Your task to perform on an android device: find snoozed emails in the gmail app Image 0: 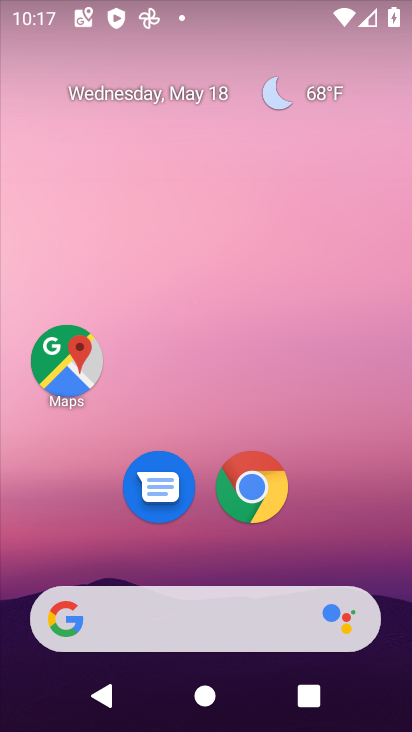
Step 0: drag from (368, 546) to (327, 126)
Your task to perform on an android device: find snoozed emails in the gmail app Image 1: 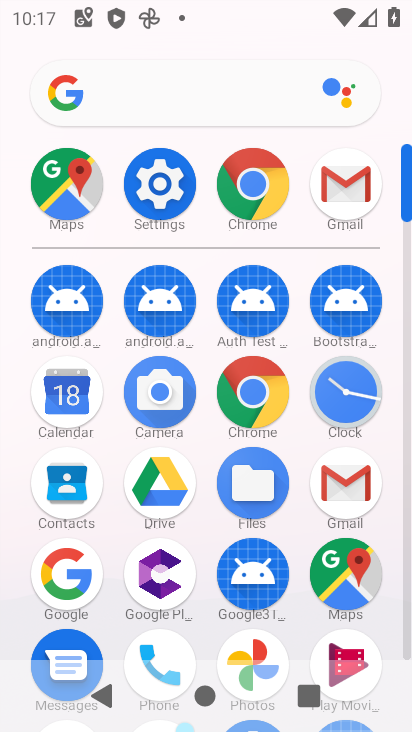
Step 1: press home button
Your task to perform on an android device: find snoozed emails in the gmail app Image 2: 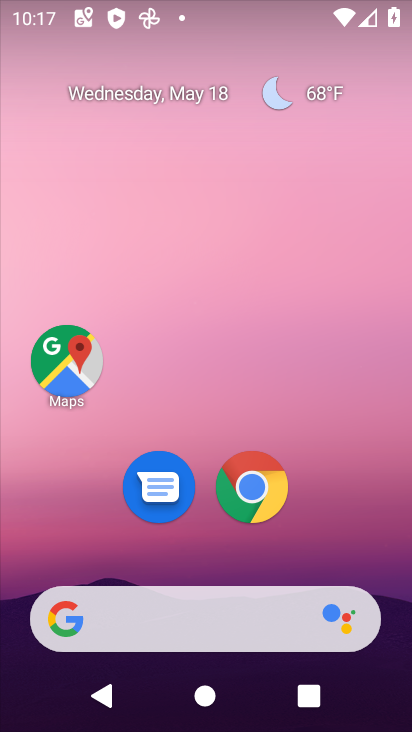
Step 2: drag from (355, 512) to (362, 199)
Your task to perform on an android device: find snoozed emails in the gmail app Image 3: 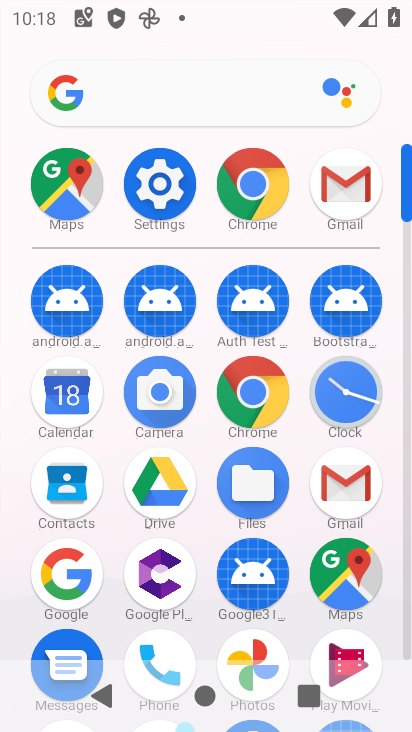
Step 3: click (351, 492)
Your task to perform on an android device: find snoozed emails in the gmail app Image 4: 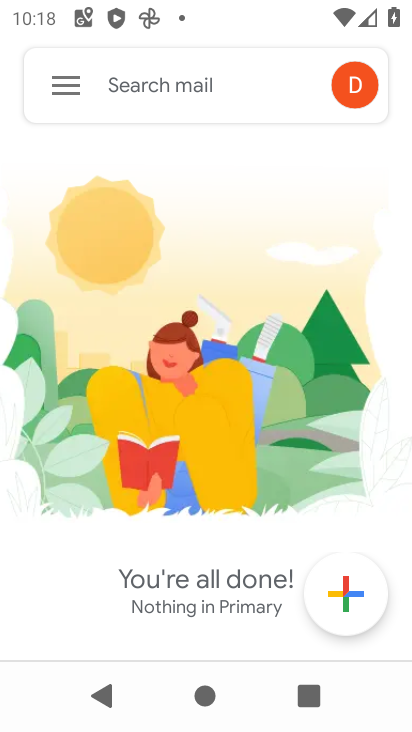
Step 4: click (66, 103)
Your task to perform on an android device: find snoozed emails in the gmail app Image 5: 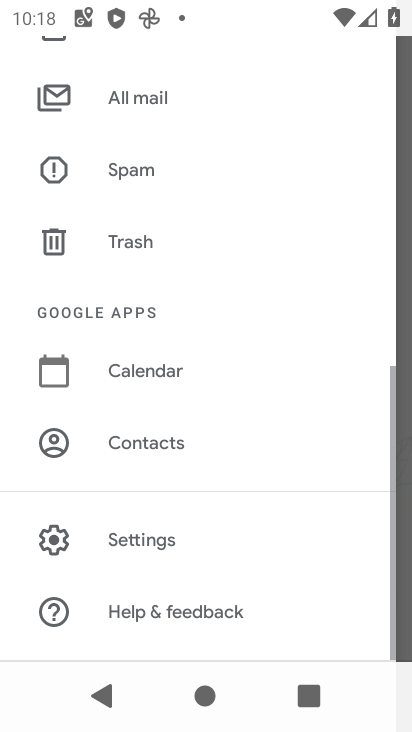
Step 5: drag from (206, 231) to (212, 625)
Your task to perform on an android device: find snoozed emails in the gmail app Image 6: 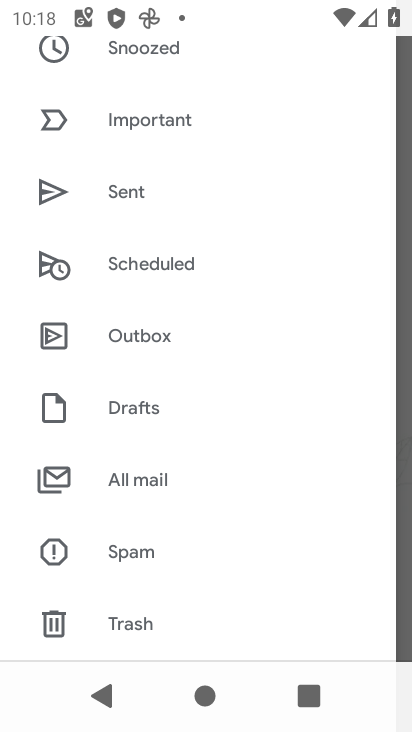
Step 6: drag from (209, 268) to (175, 616)
Your task to perform on an android device: find snoozed emails in the gmail app Image 7: 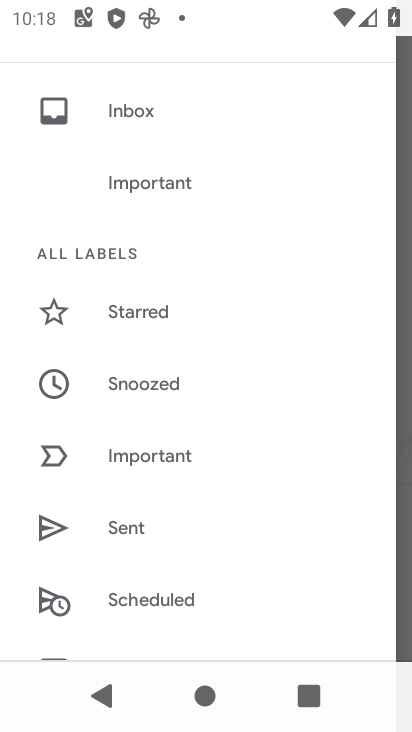
Step 7: click (173, 387)
Your task to perform on an android device: find snoozed emails in the gmail app Image 8: 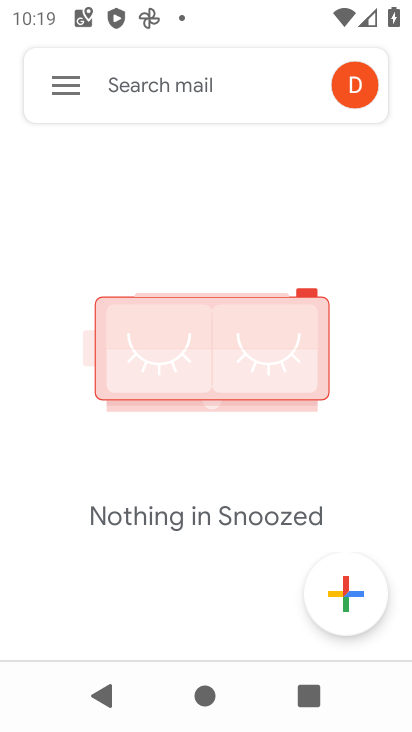
Step 8: click (65, 79)
Your task to perform on an android device: find snoozed emails in the gmail app Image 9: 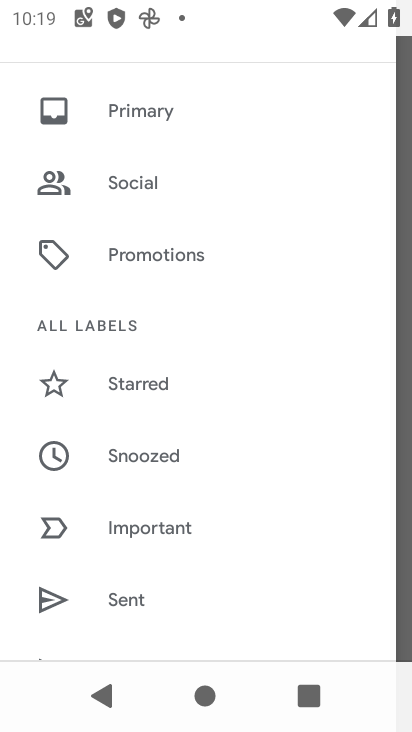
Step 9: click (179, 460)
Your task to perform on an android device: find snoozed emails in the gmail app Image 10: 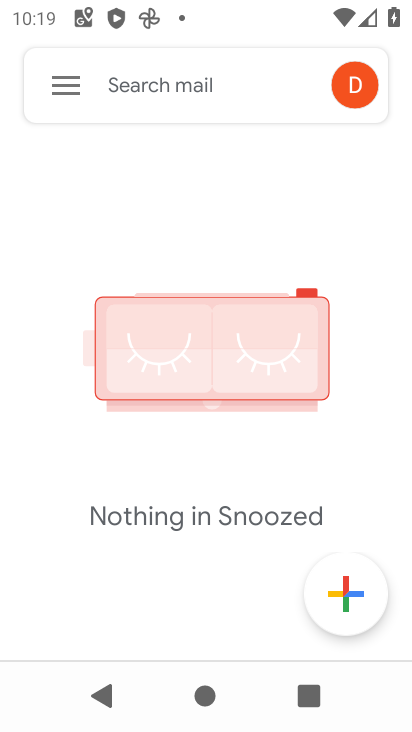
Step 10: task complete